Your task to perform on an android device: Search for sushi restaurants on Maps Image 0: 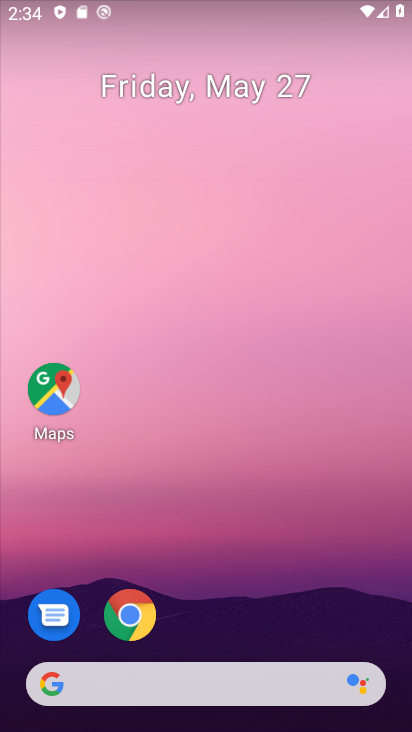
Step 0: drag from (279, 689) to (257, 159)
Your task to perform on an android device: Search for sushi restaurants on Maps Image 1: 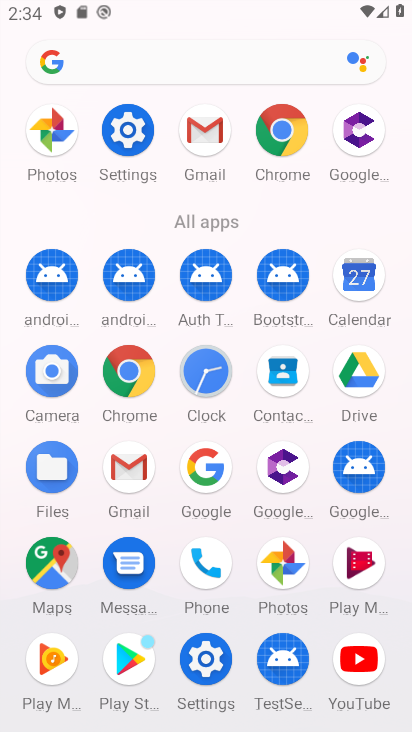
Step 1: click (40, 571)
Your task to perform on an android device: Search for sushi restaurants on Maps Image 2: 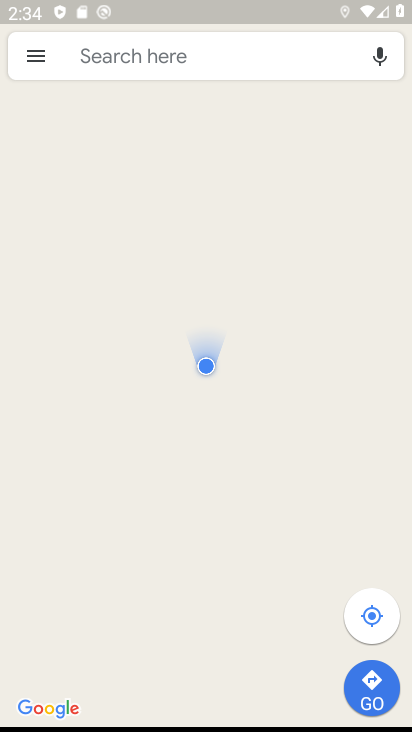
Step 2: click (167, 66)
Your task to perform on an android device: Search for sushi restaurants on Maps Image 3: 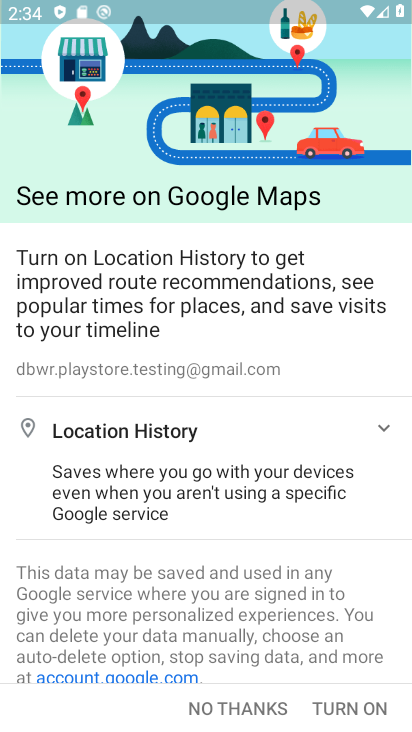
Step 3: click (237, 714)
Your task to perform on an android device: Search for sushi restaurants on Maps Image 4: 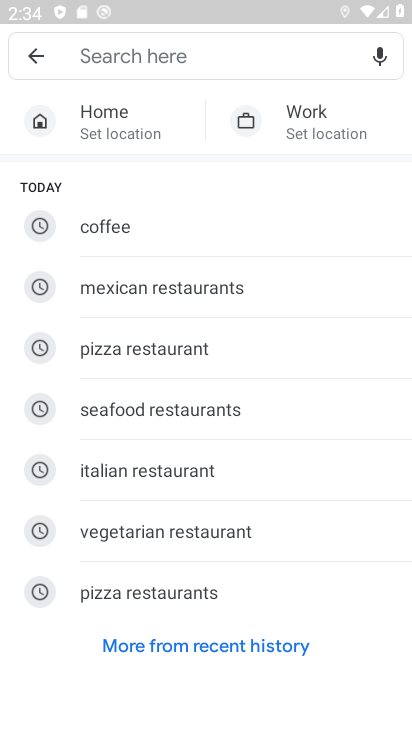
Step 4: click (132, 58)
Your task to perform on an android device: Search for sushi restaurants on Maps Image 5: 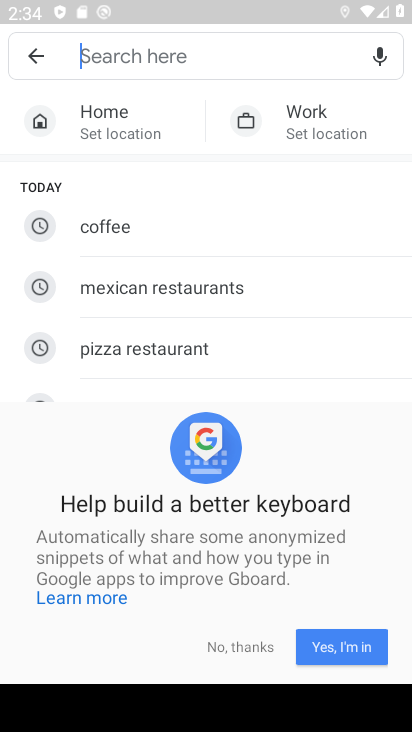
Step 5: click (217, 663)
Your task to perform on an android device: Search for sushi restaurants on Maps Image 6: 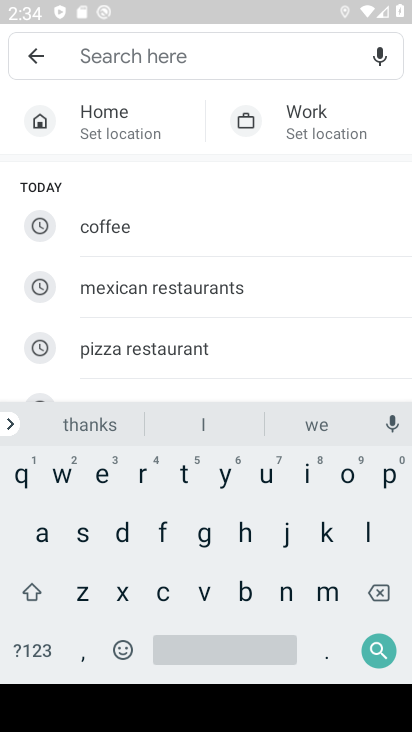
Step 6: click (76, 544)
Your task to perform on an android device: Search for sushi restaurants on Maps Image 7: 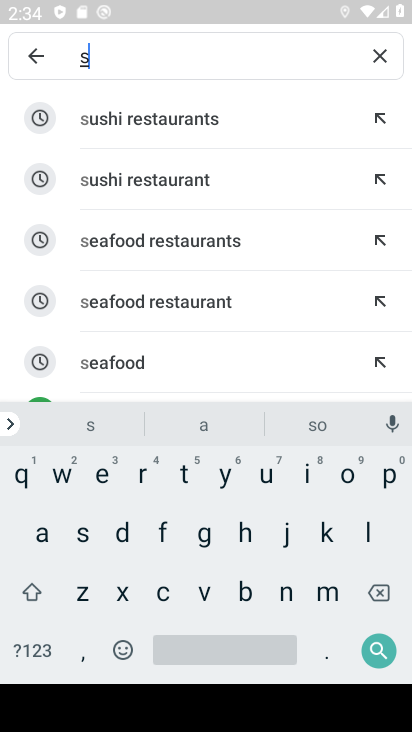
Step 7: click (173, 121)
Your task to perform on an android device: Search for sushi restaurants on Maps Image 8: 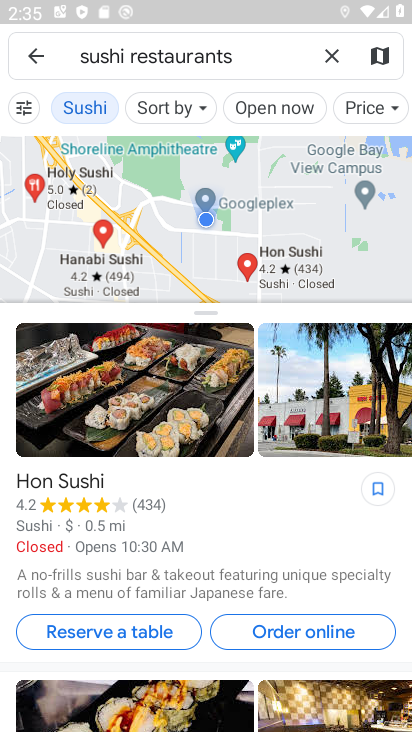
Step 8: click (148, 263)
Your task to perform on an android device: Search for sushi restaurants on Maps Image 9: 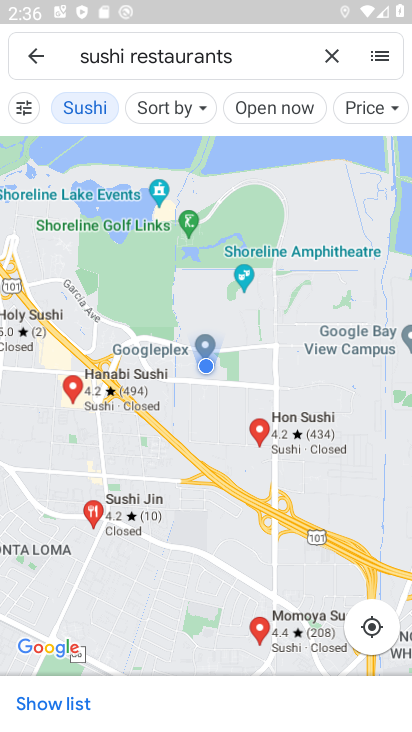
Step 9: task complete